Your task to perform on an android device: turn off location history Image 0: 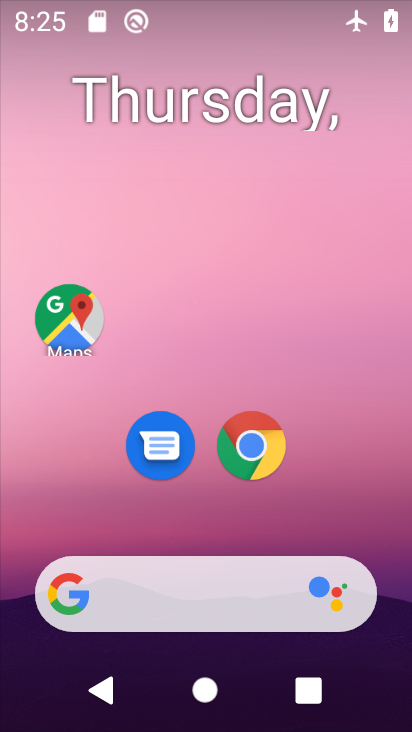
Step 0: drag from (300, 538) to (281, 116)
Your task to perform on an android device: turn off location history Image 1: 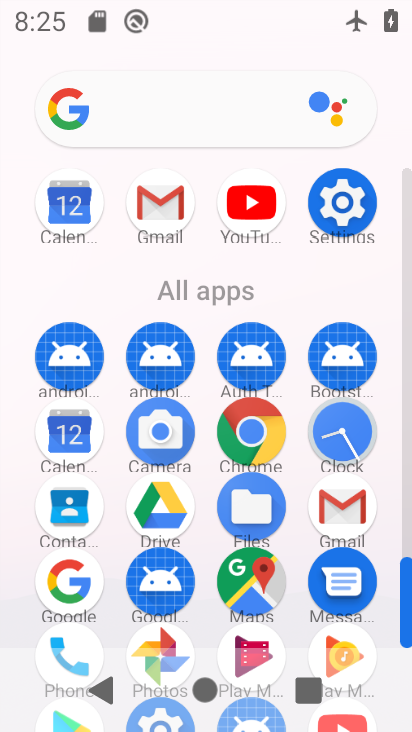
Step 1: click (360, 207)
Your task to perform on an android device: turn off location history Image 2: 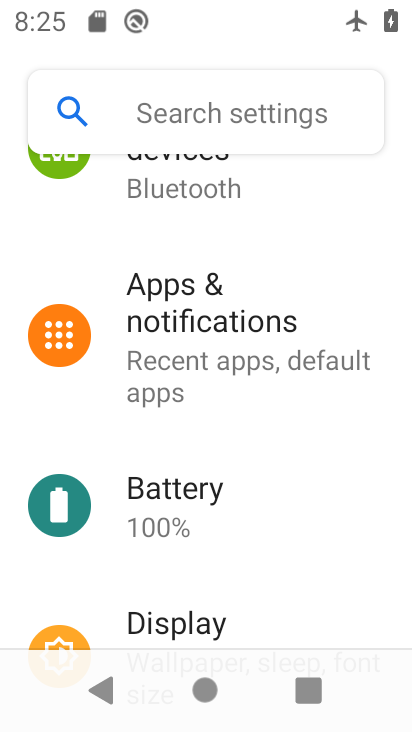
Step 2: drag from (234, 607) to (268, 279)
Your task to perform on an android device: turn off location history Image 3: 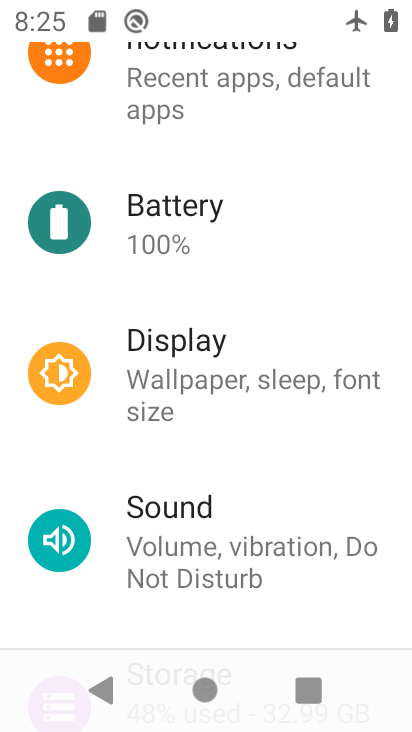
Step 3: drag from (258, 575) to (288, 231)
Your task to perform on an android device: turn off location history Image 4: 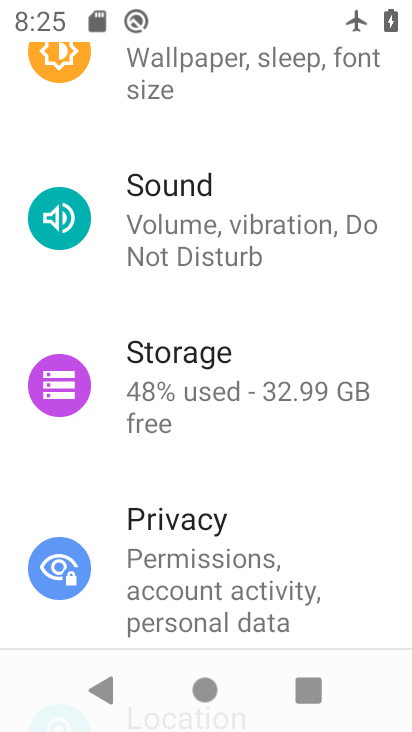
Step 4: drag from (281, 599) to (318, 145)
Your task to perform on an android device: turn off location history Image 5: 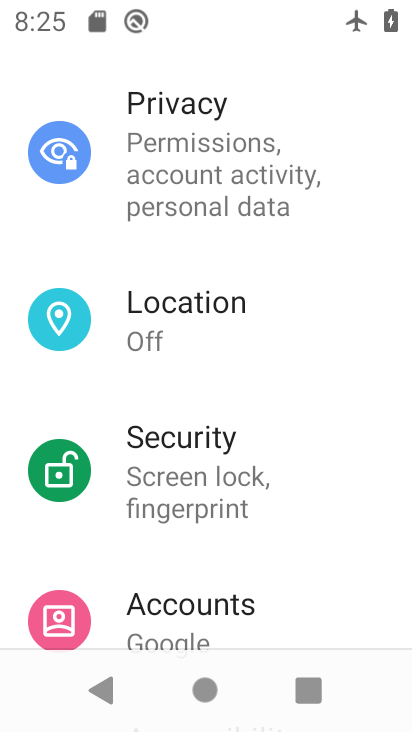
Step 5: click (141, 318)
Your task to perform on an android device: turn off location history Image 6: 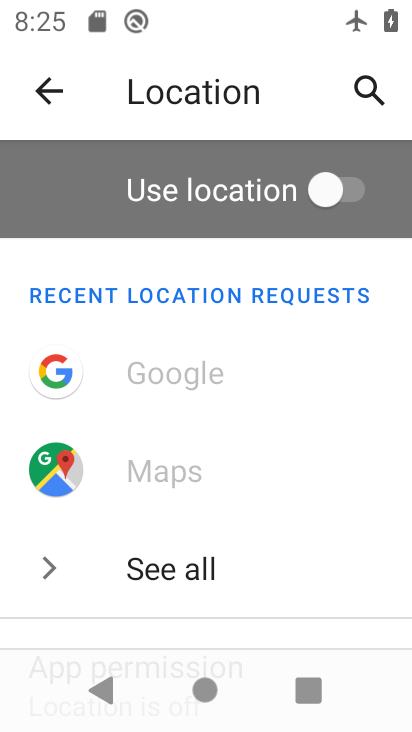
Step 6: drag from (227, 560) to (190, 180)
Your task to perform on an android device: turn off location history Image 7: 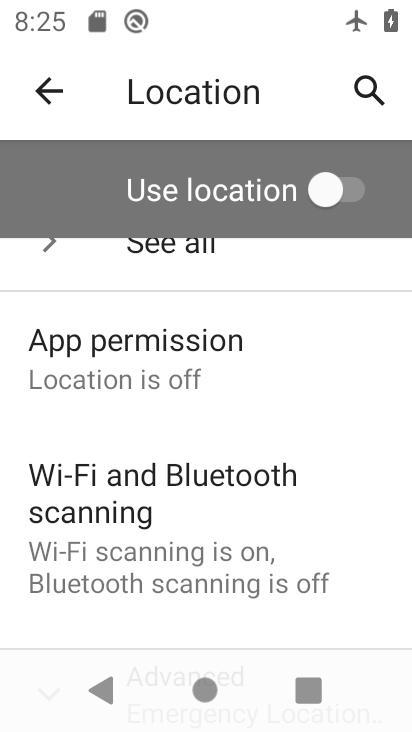
Step 7: drag from (180, 610) to (159, 304)
Your task to perform on an android device: turn off location history Image 8: 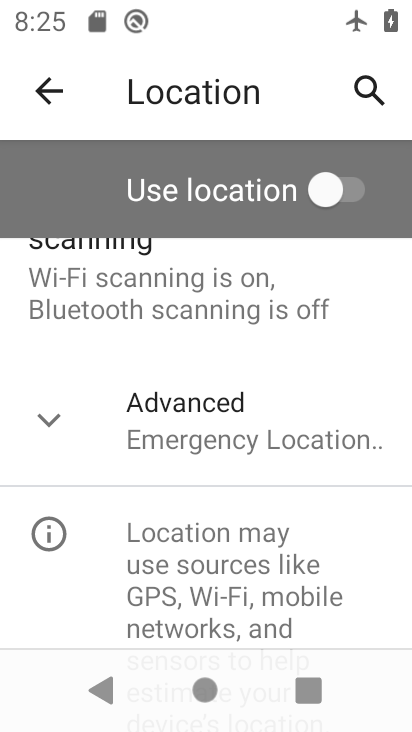
Step 8: click (180, 434)
Your task to perform on an android device: turn off location history Image 9: 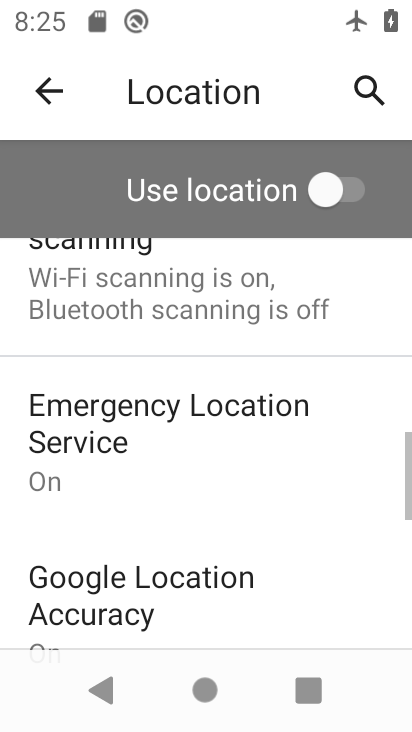
Step 9: task complete